Your task to perform on an android device: Check the weather Image 0: 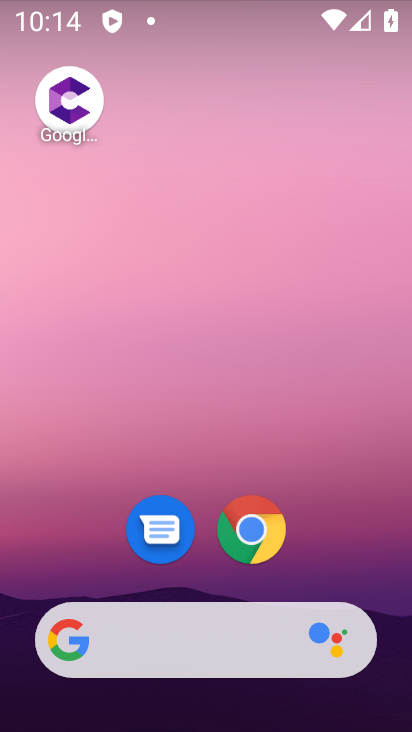
Step 0: drag from (40, 338) to (410, 387)
Your task to perform on an android device: Check the weather Image 1: 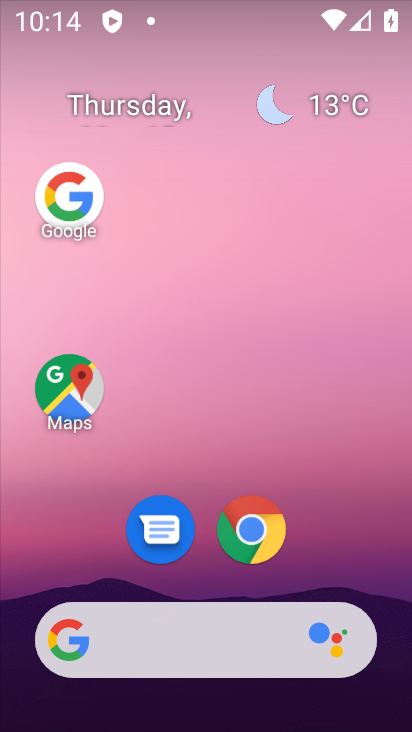
Step 1: click (63, 195)
Your task to perform on an android device: Check the weather Image 2: 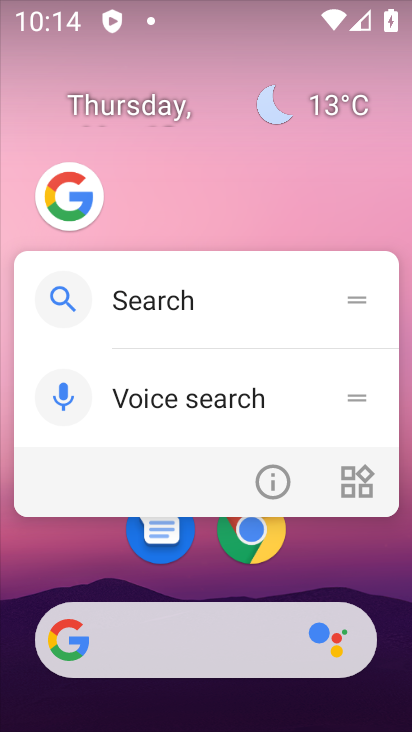
Step 2: click (330, 113)
Your task to perform on an android device: Check the weather Image 3: 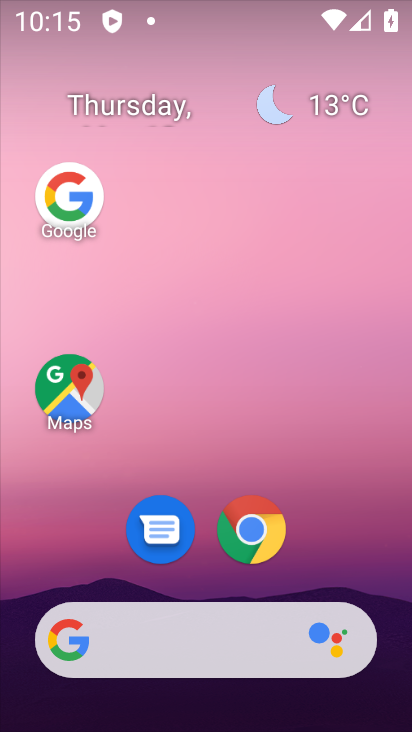
Step 3: click (330, 113)
Your task to perform on an android device: Check the weather Image 4: 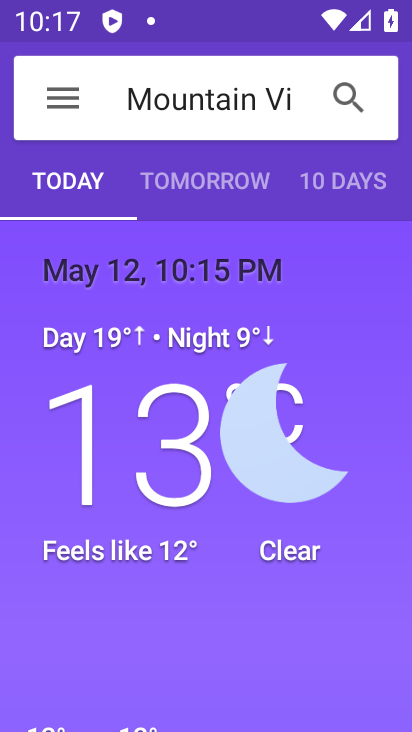
Step 4: task complete